Your task to perform on an android device: make emails show in primary in the gmail app Image 0: 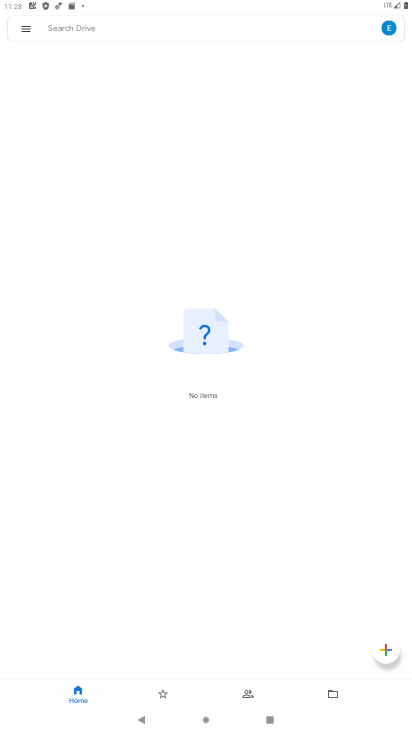
Step 0: press home button
Your task to perform on an android device: make emails show in primary in the gmail app Image 1: 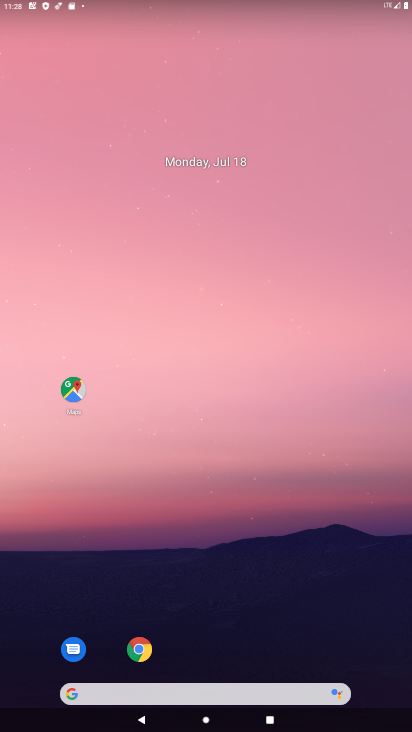
Step 1: drag from (230, 722) to (222, 205)
Your task to perform on an android device: make emails show in primary in the gmail app Image 2: 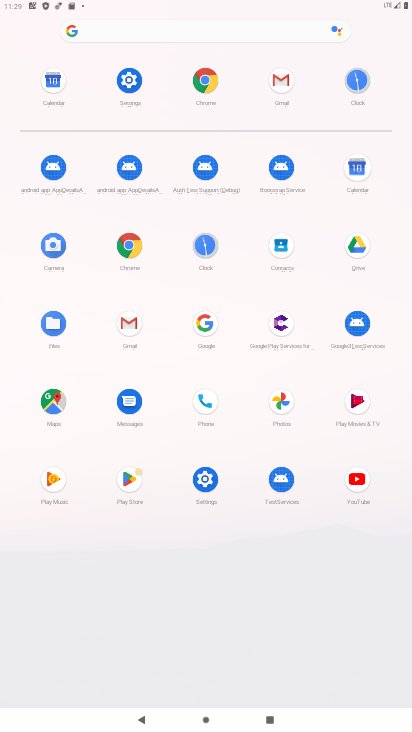
Step 2: click (284, 87)
Your task to perform on an android device: make emails show in primary in the gmail app Image 3: 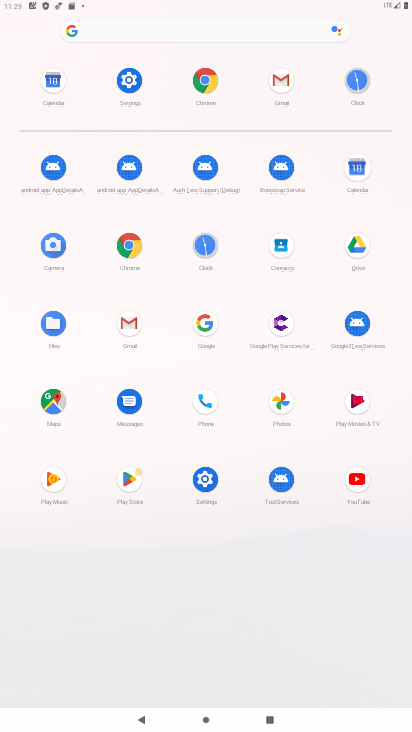
Step 3: click (284, 87)
Your task to perform on an android device: make emails show in primary in the gmail app Image 4: 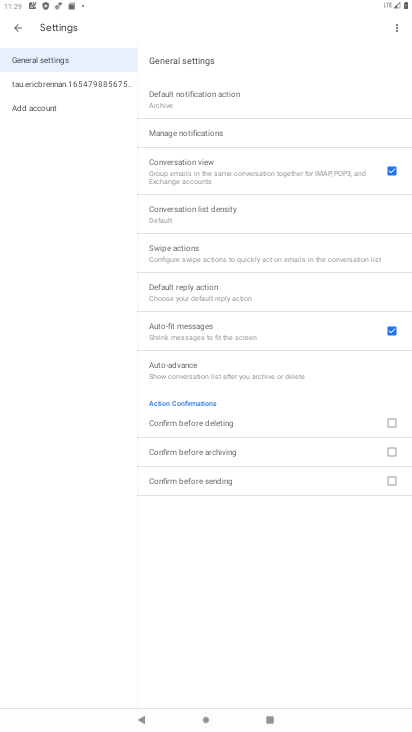
Step 4: click (63, 79)
Your task to perform on an android device: make emails show in primary in the gmail app Image 5: 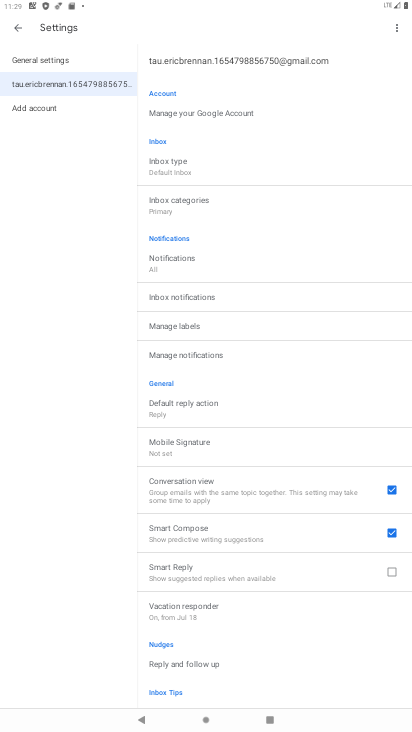
Step 5: task complete